Your task to perform on an android device: turn on notifications settings in the gmail app Image 0: 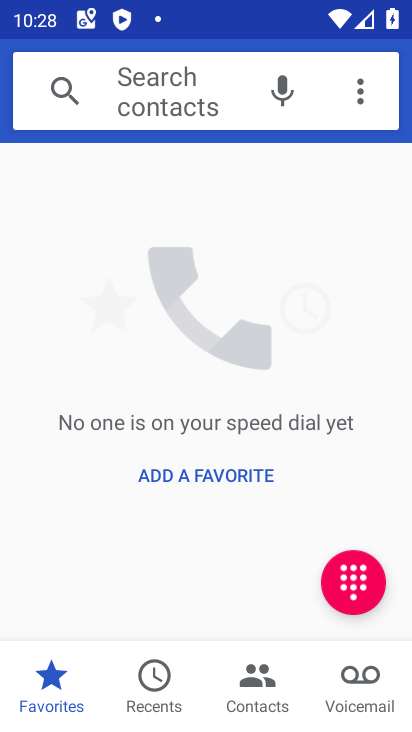
Step 0: press home button
Your task to perform on an android device: turn on notifications settings in the gmail app Image 1: 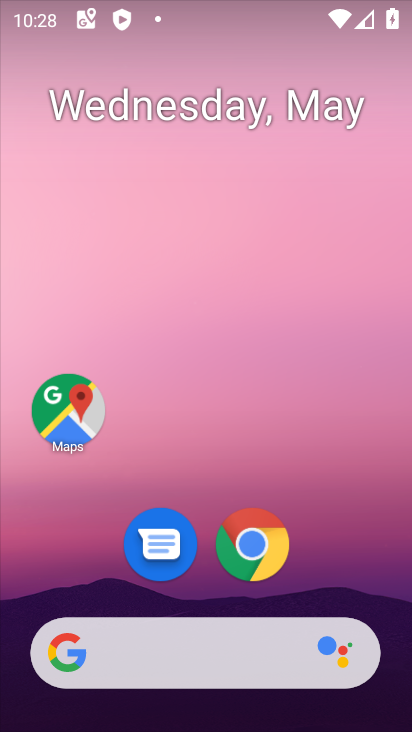
Step 1: drag from (396, 553) to (411, 422)
Your task to perform on an android device: turn on notifications settings in the gmail app Image 2: 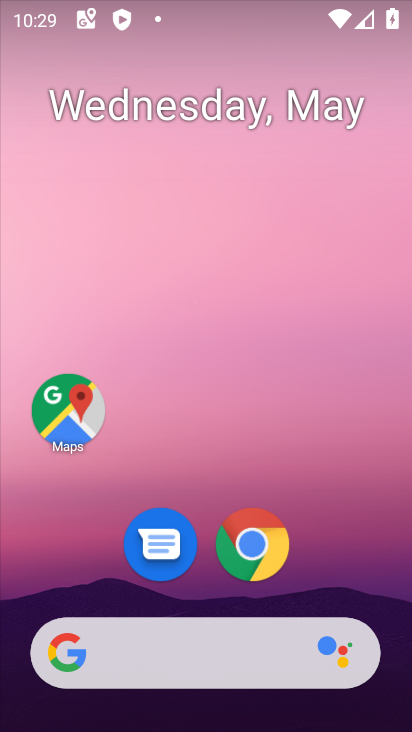
Step 2: drag from (296, 709) to (409, 187)
Your task to perform on an android device: turn on notifications settings in the gmail app Image 3: 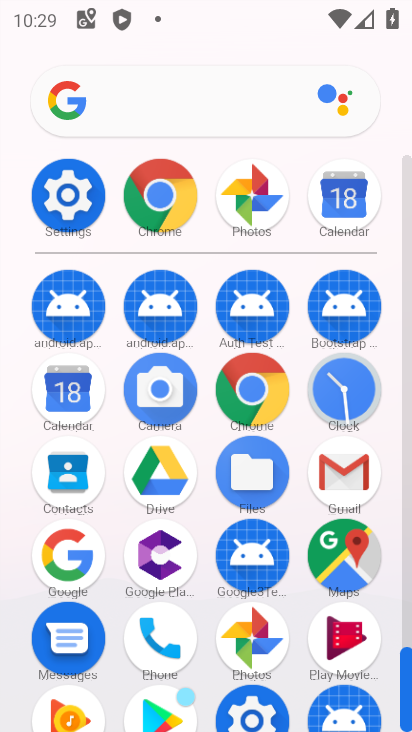
Step 3: click (344, 455)
Your task to perform on an android device: turn on notifications settings in the gmail app Image 4: 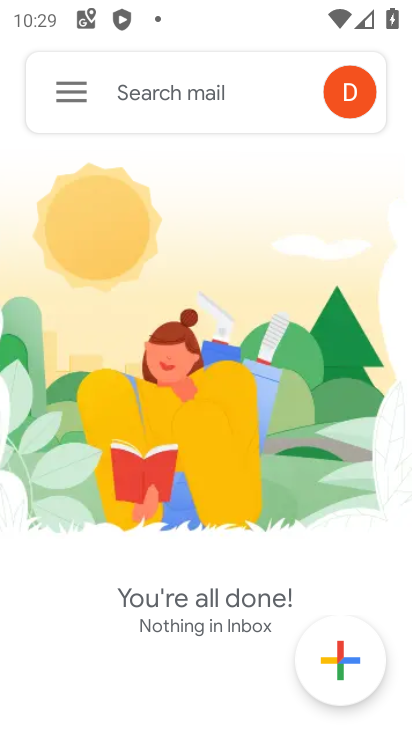
Step 4: click (79, 91)
Your task to perform on an android device: turn on notifications settings in the gmail app Image 5: 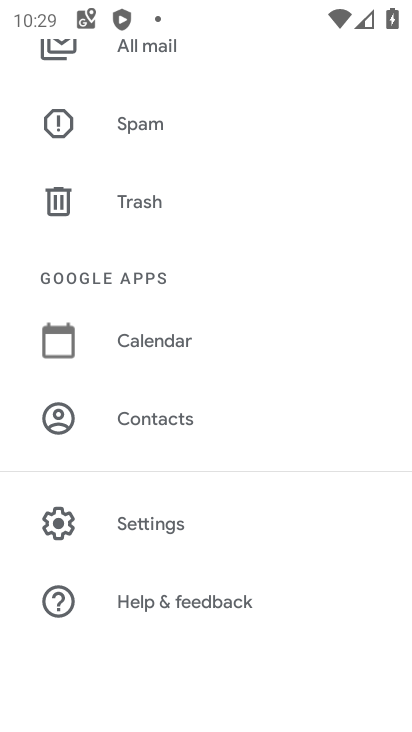
Step 5: click (169, 515)
Your task to perform on an android device: turn on notifications settings in the gmail app Image 6: 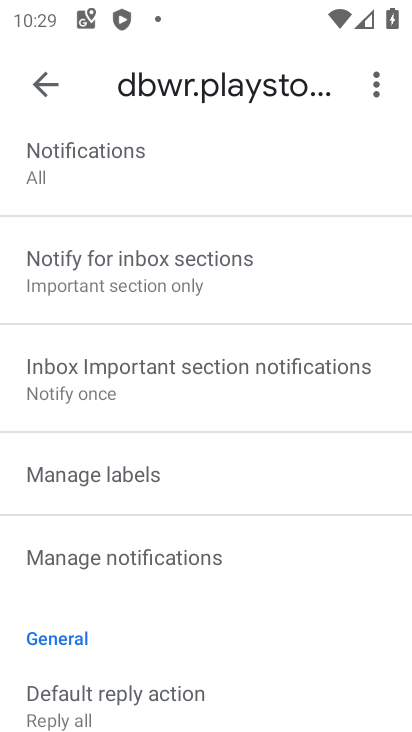
Step 6: click (173, 547)
Your task to perform on an android device: turn on notifications settings in the gmail app Image 7: 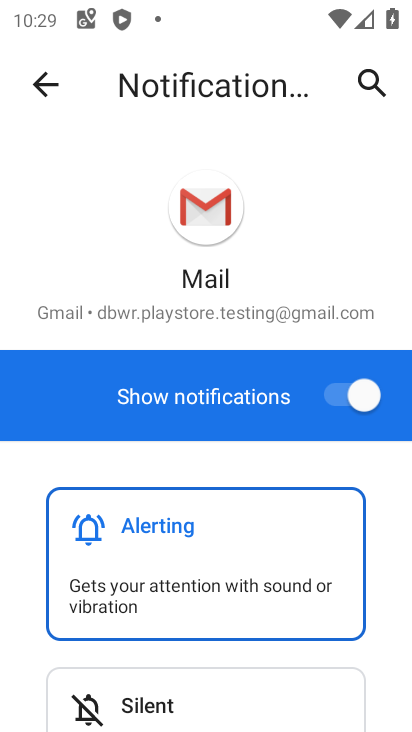
Step 7: task complete